Your task to perform on an android device: add a contact in the contacts app Image 0: 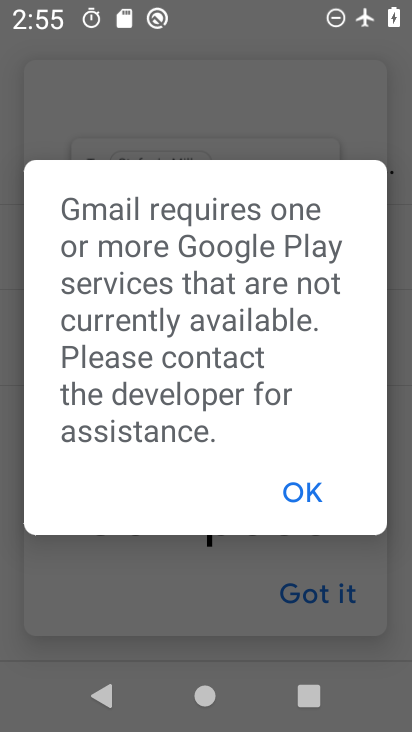
Step 0: press home button
Your task to perform on an android device: add a contact in the contacts app Image 1: 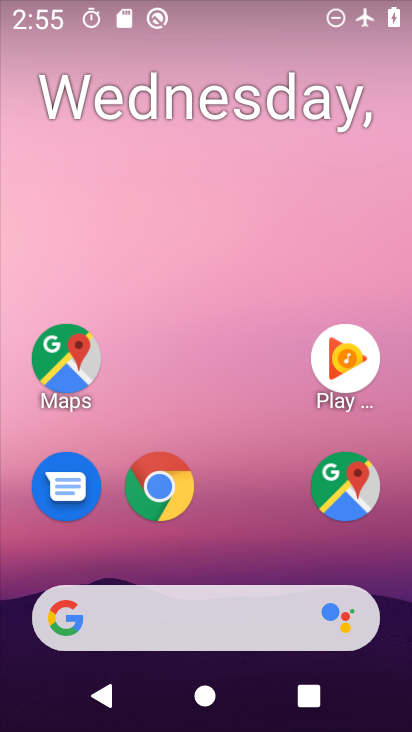
Step 1: drag from (274, 550) to (255, 130)
Your task to perform on an android device: add a contact in the contacts app Image 2: 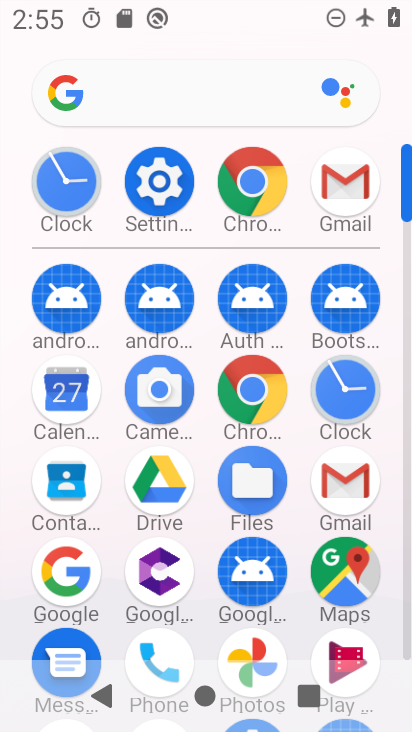
Step 2: click (64, 486)
Your task to perform on an android device: add a contact in the contacts app Image 3: 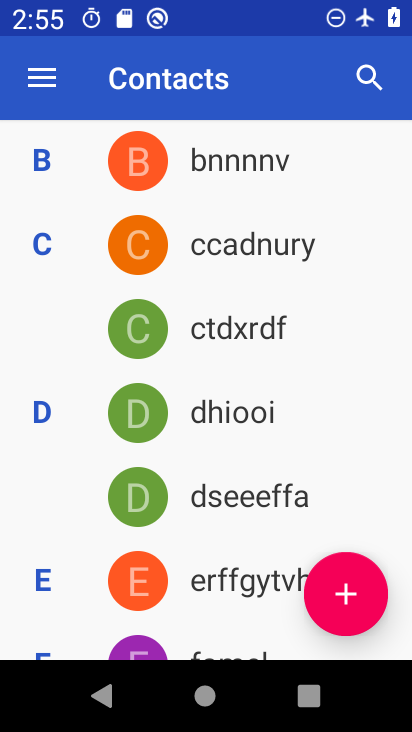
Step 3: click (343, 603)
Your task to perform on an android device: add a contact in the contacts app Image 4: 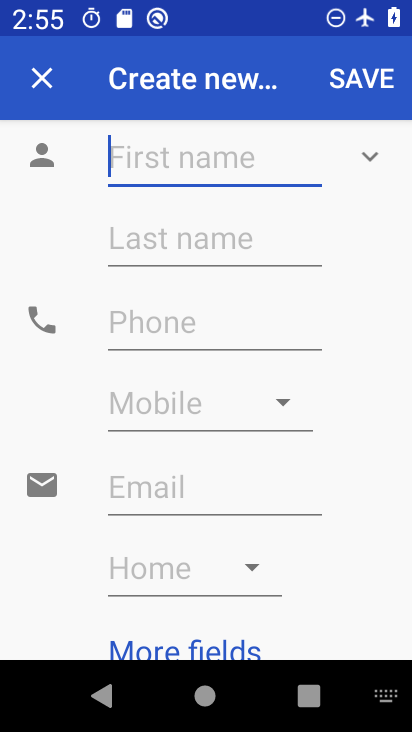
Step 4: type "lololo"
Your task to perform on an android device: add a contact in the contacts app Image 5: 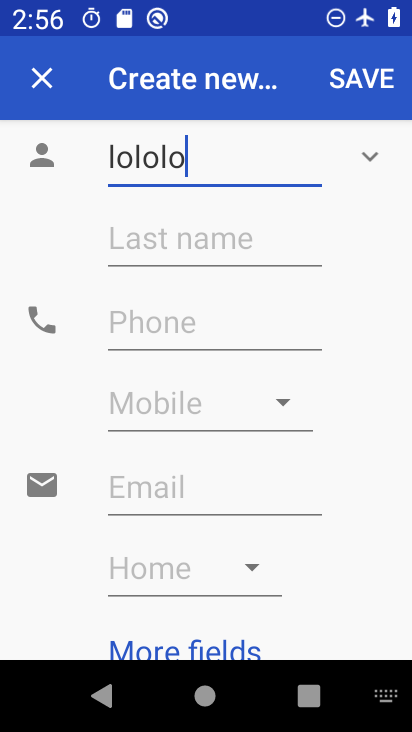
Step 5: click (294, 316)
Your task to perform on an android device: add a contact in the contacts app Image 6: 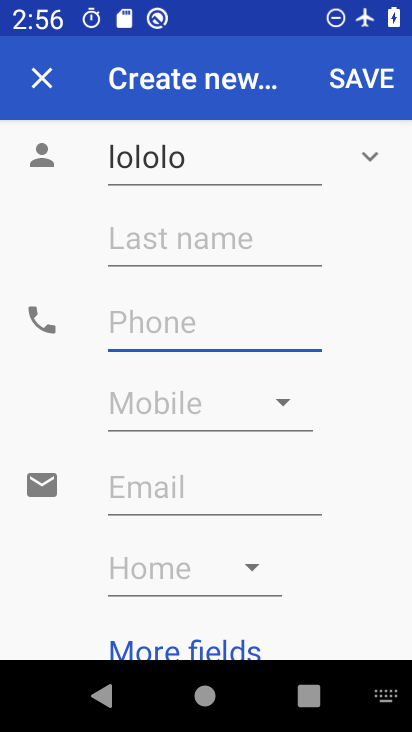
Step 6: type "123434556677889"
Your task to perform on an android device: add a contact in the contacts app Image 7: 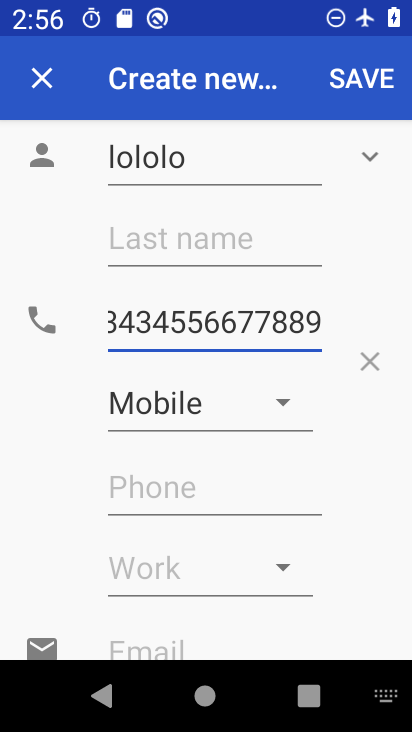
Step 7: click (372, 92)
Your task to perform on an android device: add a contact in the contacts app Image 8: 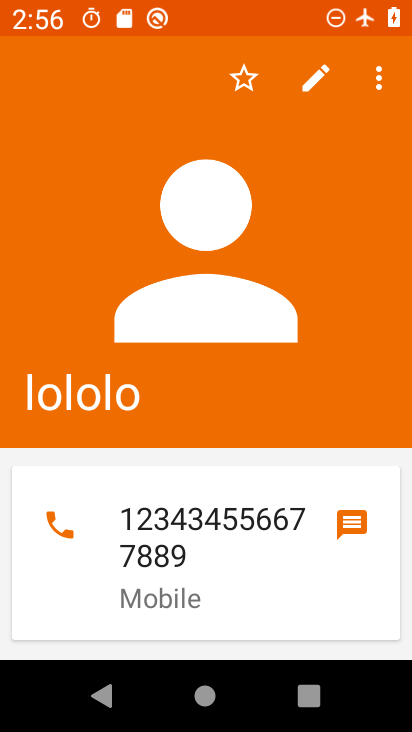
Step 8: task complete